Your task to perform on an android device: Open maps Image 0: 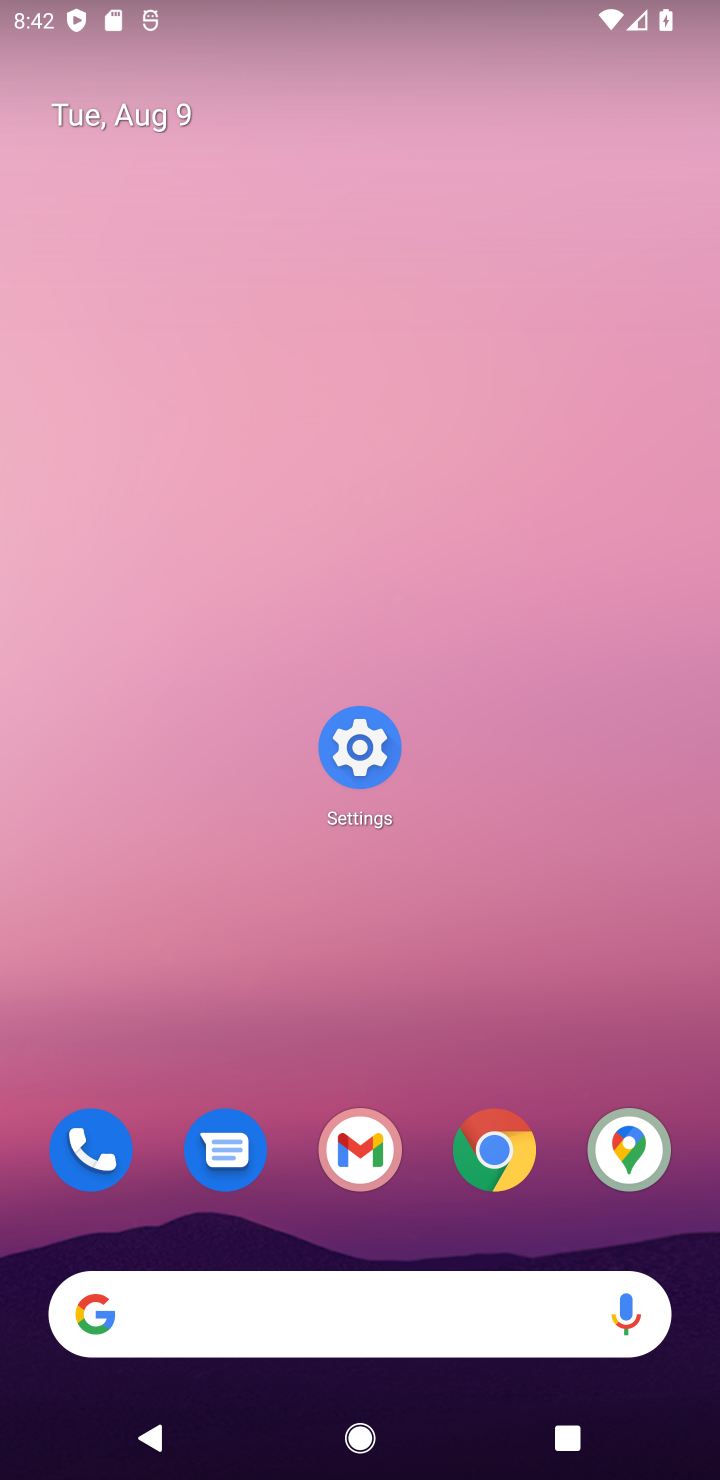
Step 0: drag from (461, 1048) to (594, 345)
Your task to perform on an android device: Open maps Image 1: 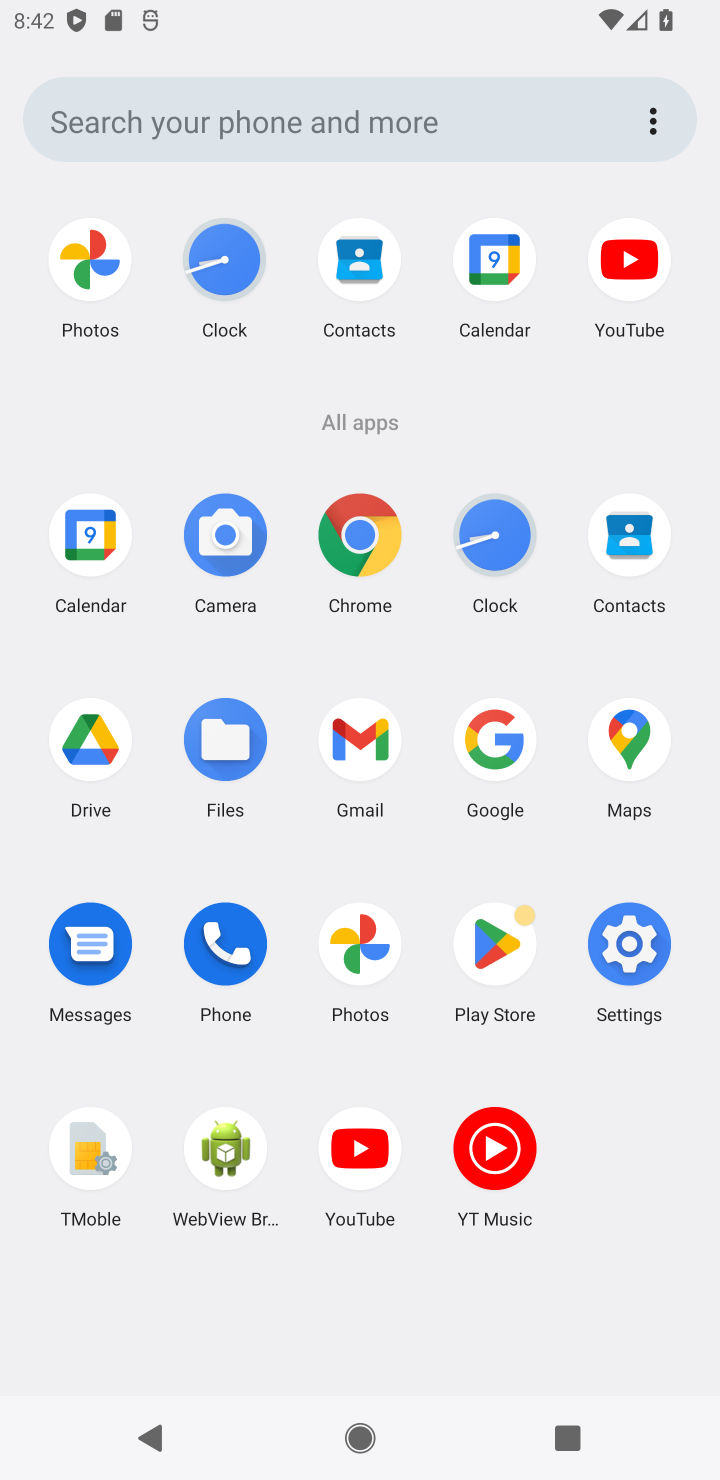
Step 1: click (634, 721)
Your task to perform on an android device: Open maps Image 2: 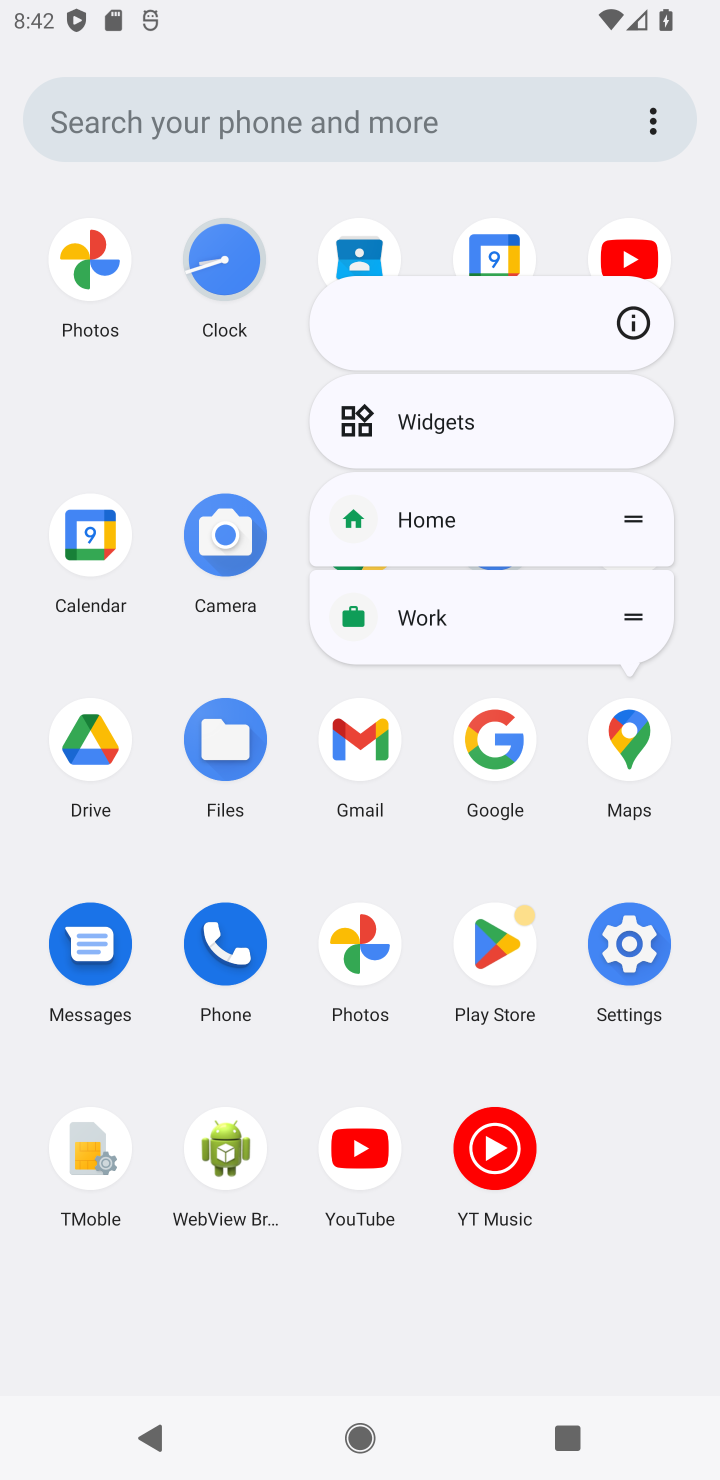
Step 2: click (632, 746)
Your task to perform on an android device: Open maps Image 3: 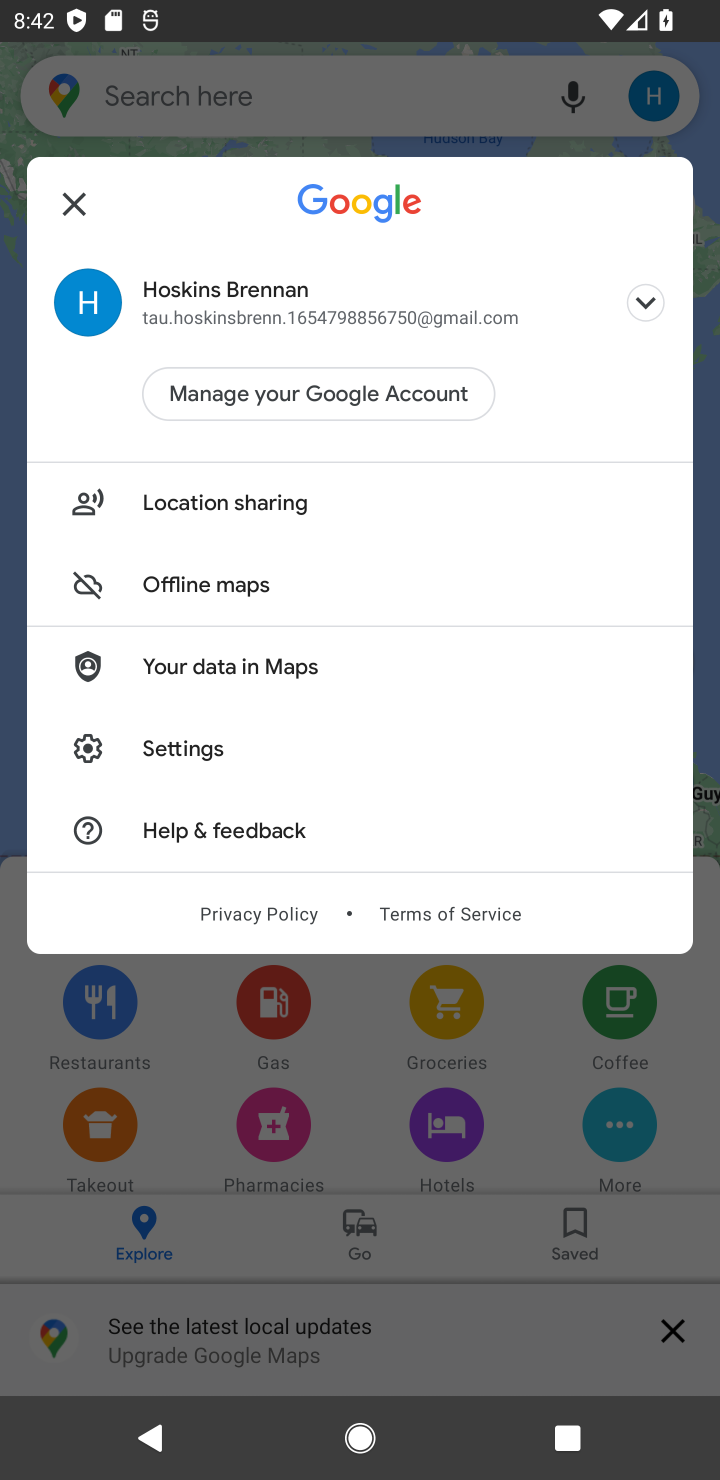
Step 3: click (70, 195)
Your task to perform on an android device: Open maps Image 4: 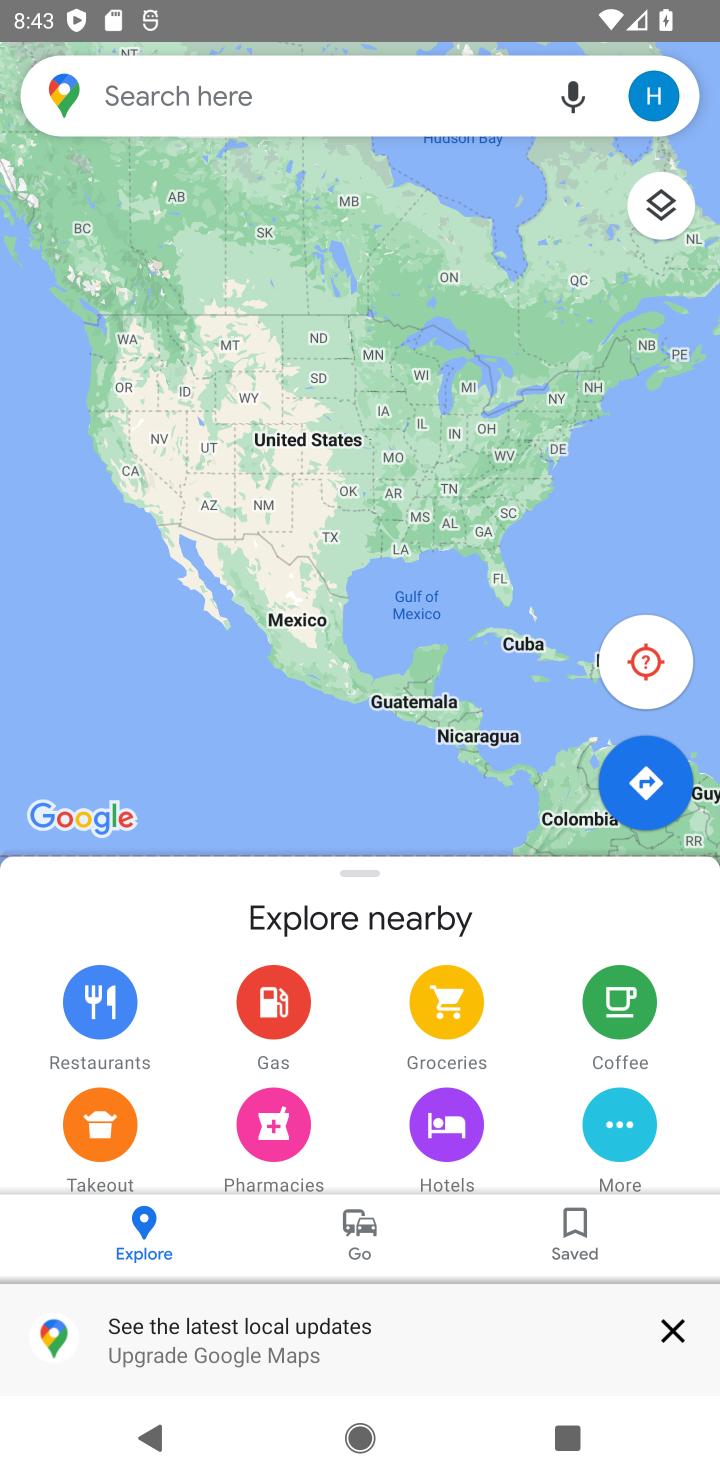
Step 4: task complete